Your task to perform on an android device: see tabs open on other devices in the chrome app Image 0: 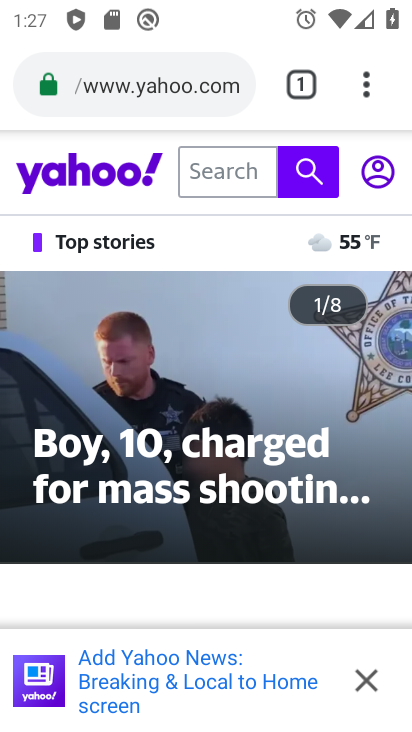
Step 0: click (365, 87)
Your task to perform on an android device: see tabs open on other devices in the chrome app Image 1: 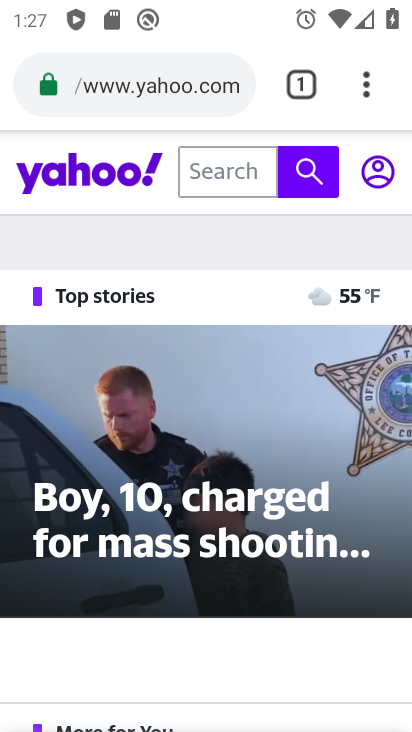
Step 1: click (365, 87)
Your task to perform on an android device: see tabs open on other devices in the chrome app Image 2: 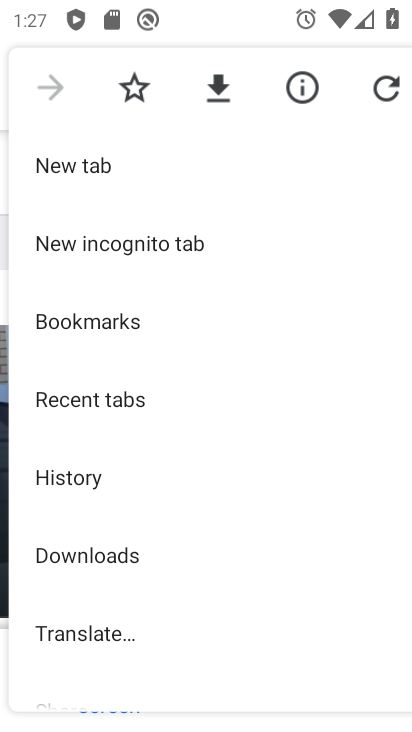
Step 2: click (89, 405)
Your task to perform on an android device: see tabs open on other devices in the chrome app Image 3: 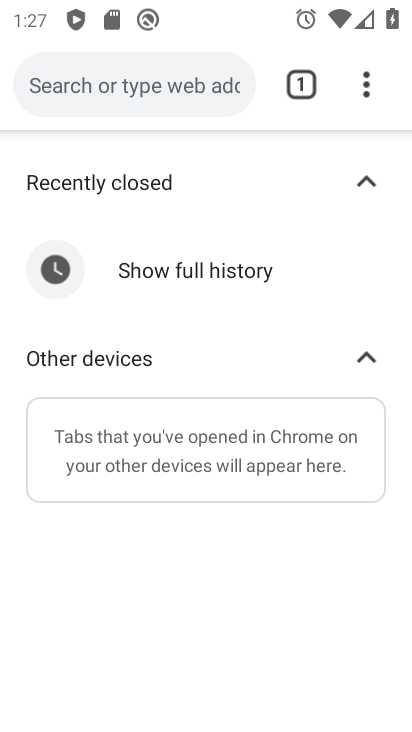
Step 3: task complete